Your task to perform on an android device: Is it going to rain tomorrow? Image 0: 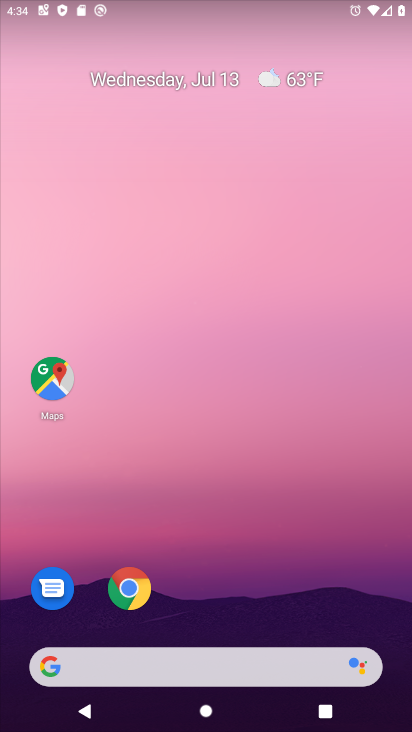
Step 0: drag from (225, 670) to (274, 208)
Your task to perform on an android device: Is it going to rain tomorrow? Image 1: 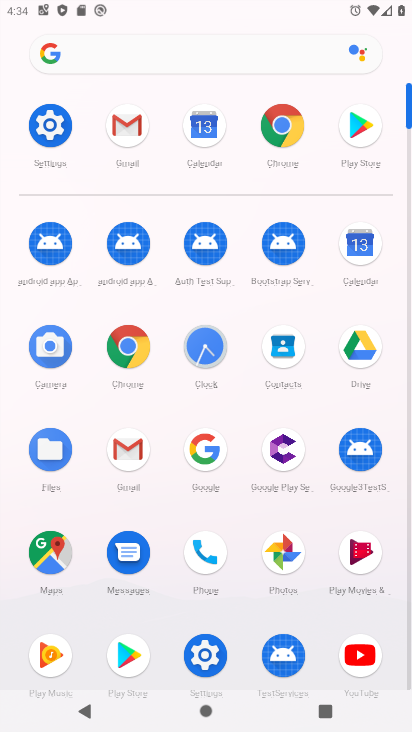
Step 1: click (203, 446)
Your task to perform on an android device: Is it going to rain tomorrow? Image 2: 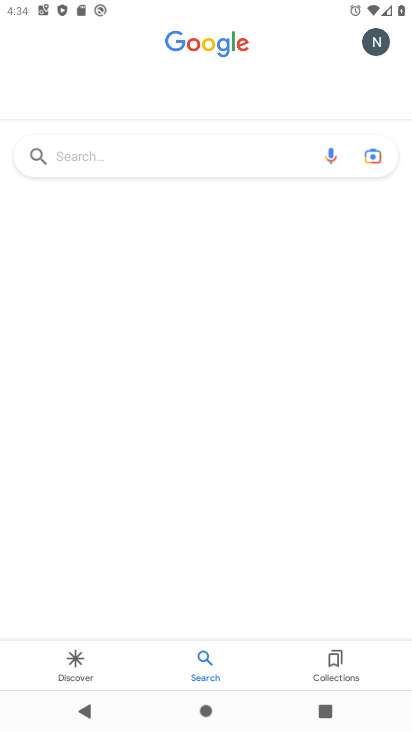
Step 2: click (199, 153)
Your task to perform on an android device: Is it going to rain tomorrow? Image 3: 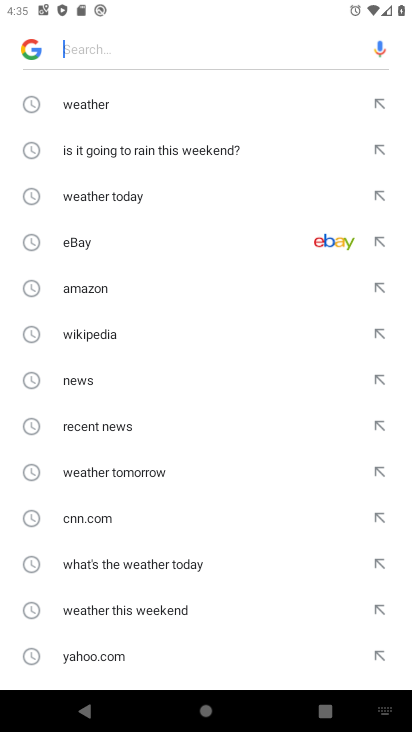
Step 3: type "Is it going to rain tomorrow?"
Your task to perform on an android device: Is it going to rain tomorrow? Image 4: 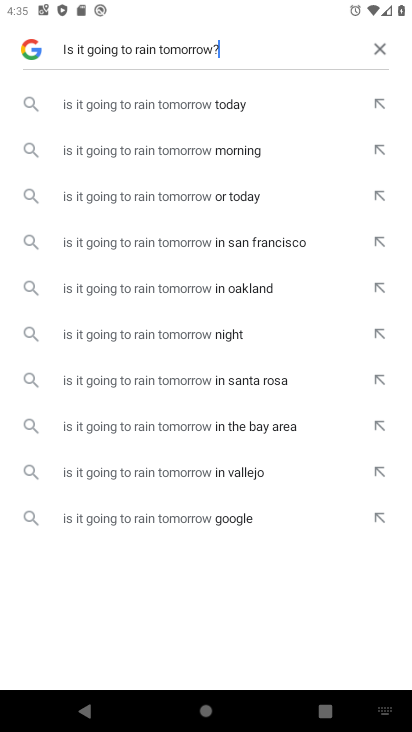
Step 4: click (158, 238)
Your task to perform on an android device: Is it going to rain tomorrow? Image 5: 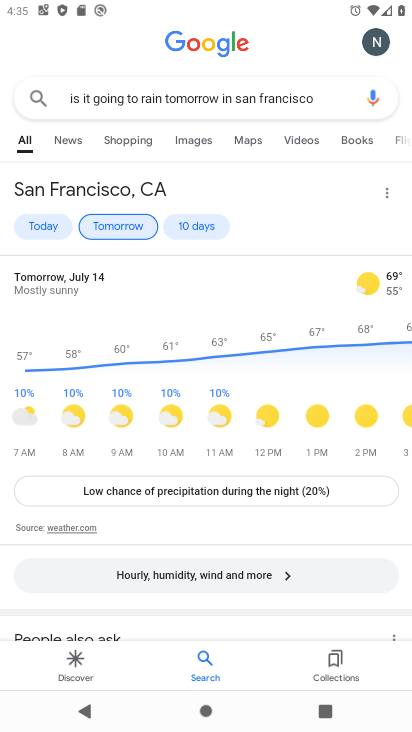
Step 5: task complete